Your task to perform on an android device: Go to location settings Image 0: 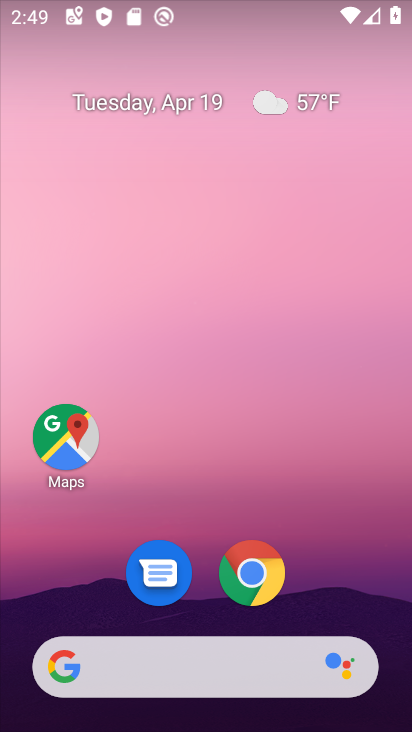
Step 0: drag from (372, 608) to (358, 19)
Your task to perform on an android device: Go to location settings Image 1: 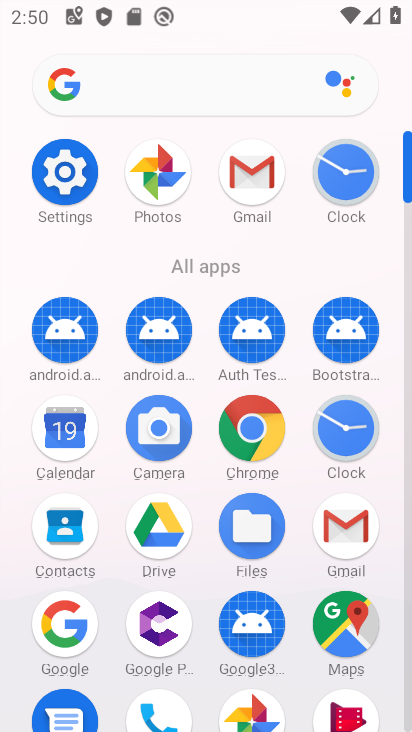
Step 1: click (61, 174)
Your task to perform on an android device: Go to location settings Image 2: 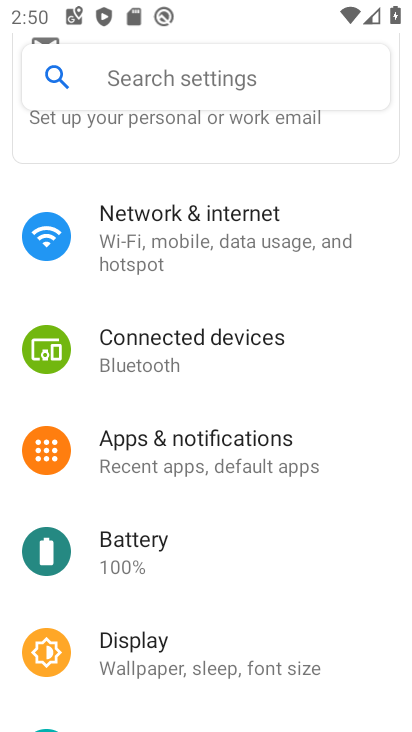
Step 2: drag from (379, 650) to (374, 366)
Your task to perform on an android device: Go to location settings Image 3: 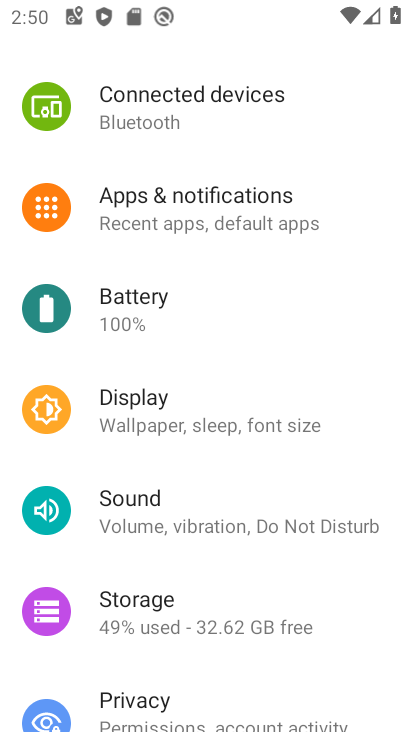
Step 3: drag from (389, 558) to (381, 272)
Your task to perform on an android device: Go to location settings Image 4: 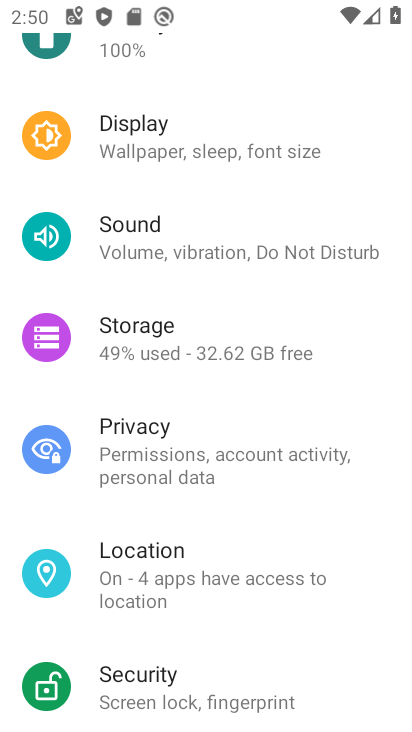
Step 4: click (122, 567)
Your task to perform on an android device: Go to location settings Image 5: 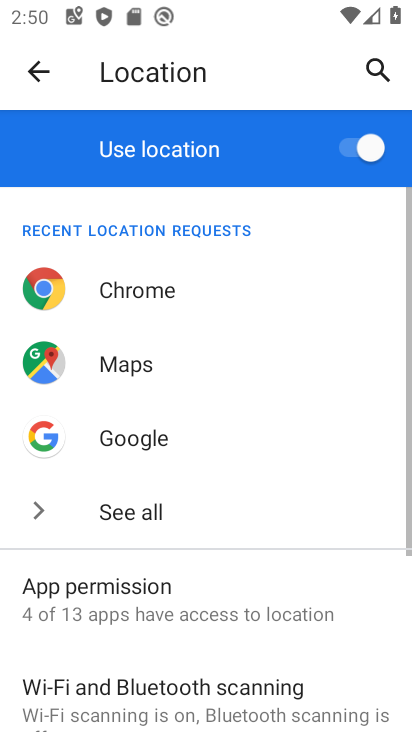
Step 5: task complete